Your task to perform on an android device: Open settings on Google Maps Image 0: 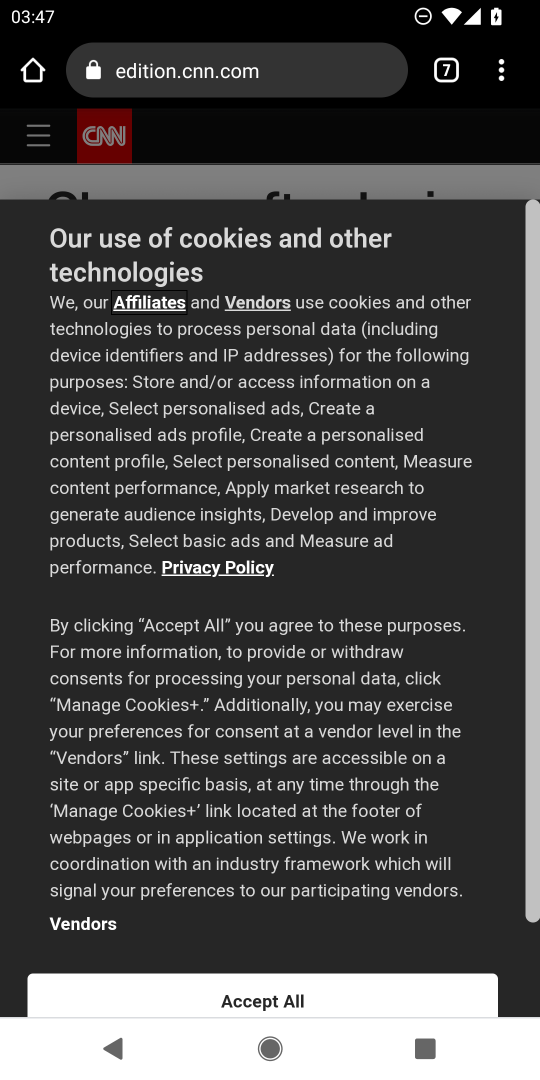
Step 0: press home button
Your task to perform on an android device: Open settings on Google Maps Image 1: 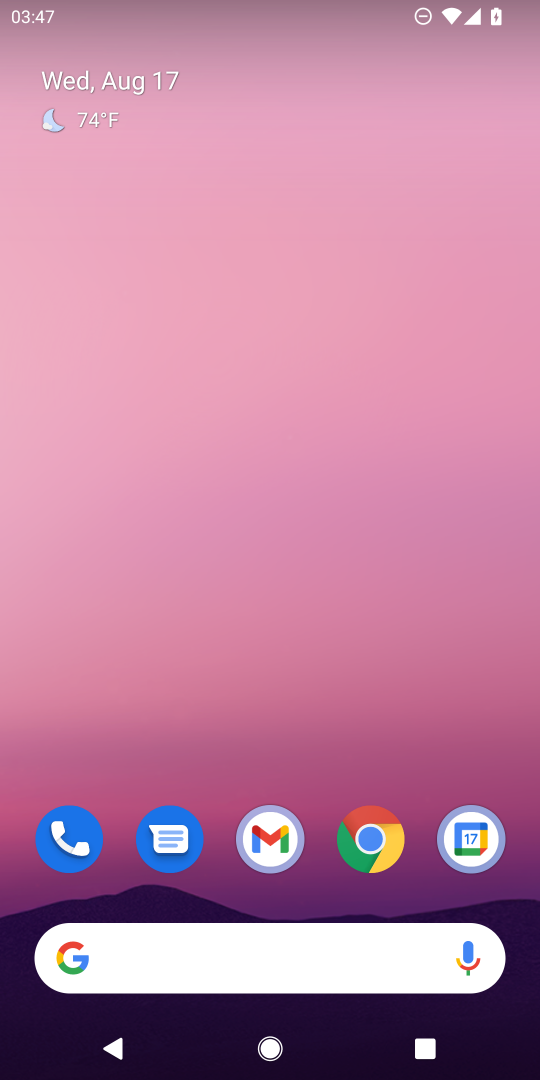
Step 1: drag from (279, 424) to (262, 293)
Your task to perform on an android device: Open settings on Google Maps Image 2: 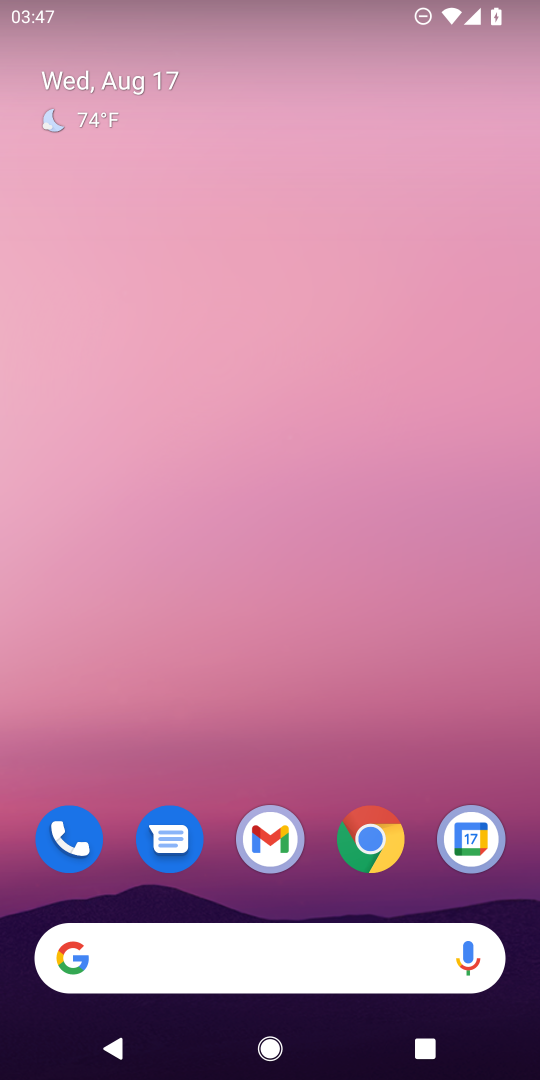
Step 2: drag from (306, 800) to (306, 143)
Your task to perform on an android device: Open settings on Google Maps Image 3: 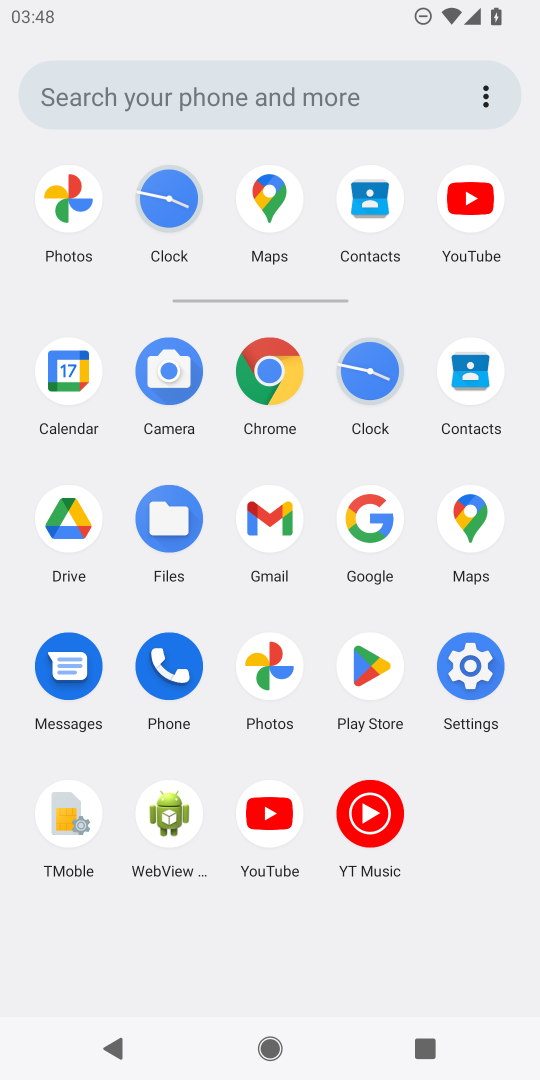
Step 3: click (476, 516)
Your task to perform on an android device: Open settings on Google Maps Image 4: 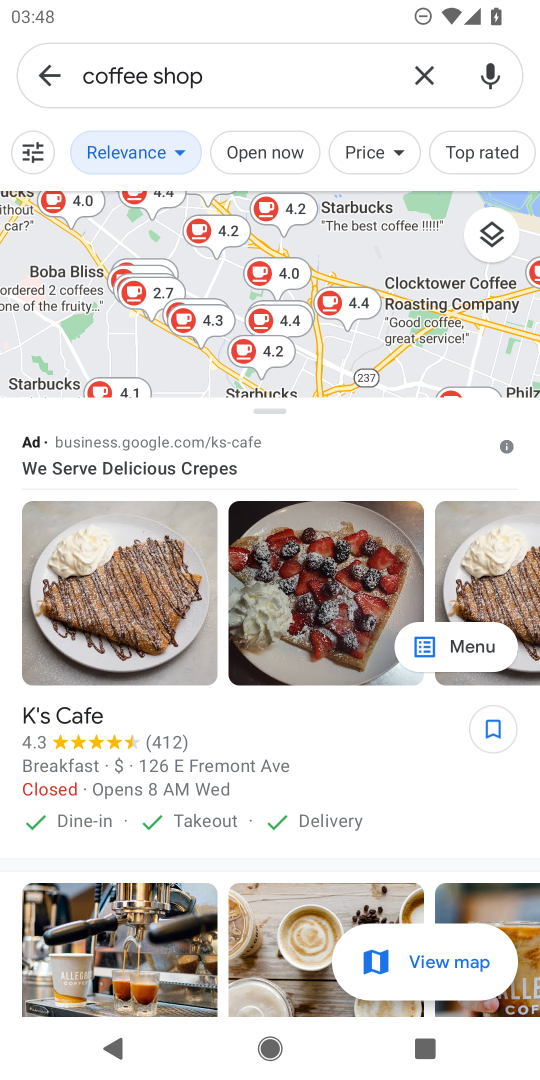
Step 4: click (44, 73)
Your task to perform on an android device: Open settings on Google Maps Image 5: 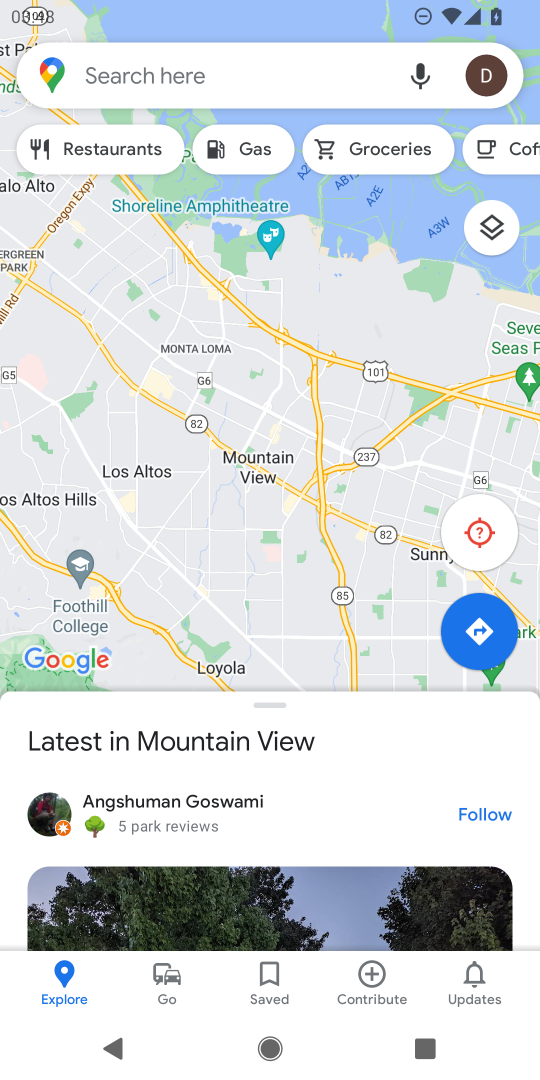
Step 5: click (483, 73)
Your task to perform on an android device: Open settings on Google Maps Image 6: 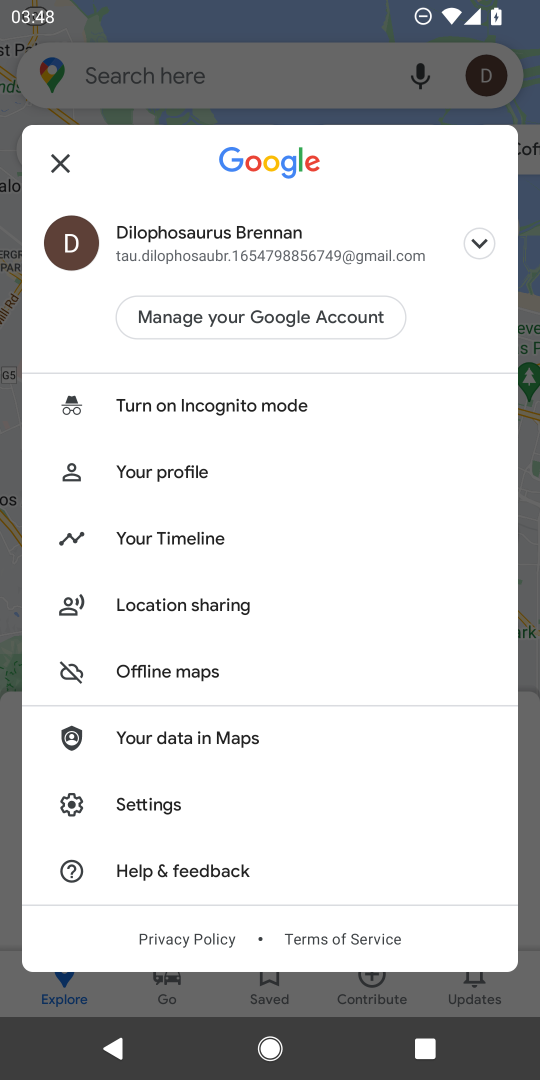
Step 6: click (144, 802)
Your task to perform on an android device: Open settings on Google Maps Image 7: 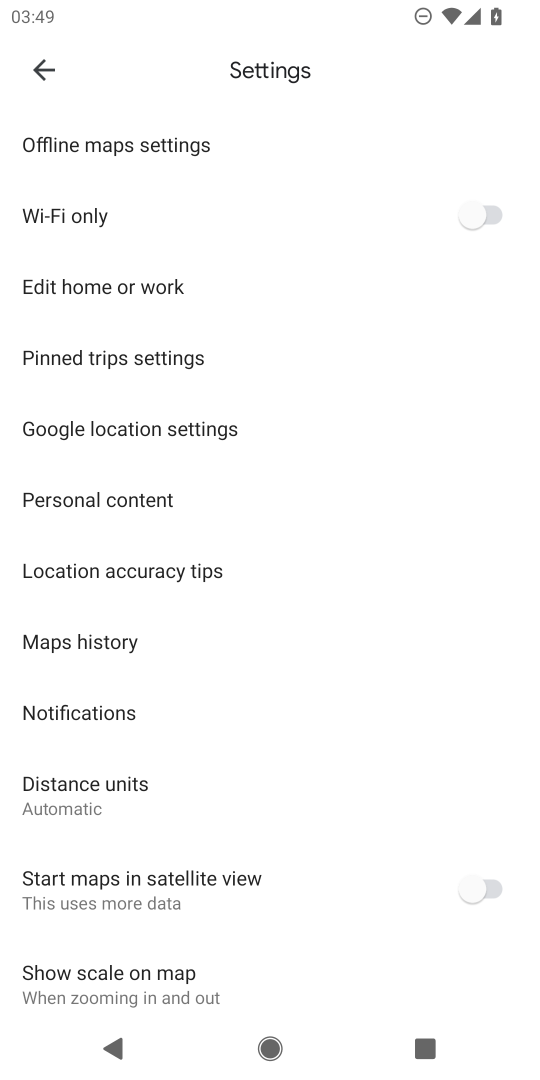
Step 7: task complete